Your task to perform on an android device: set the stopwatch Image 0: 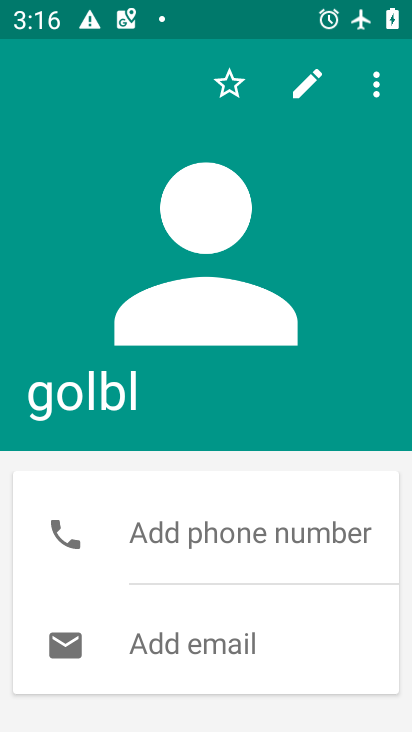
Step 0: press home button
Your task to perform on an android device: set the stopwatch Image 1: 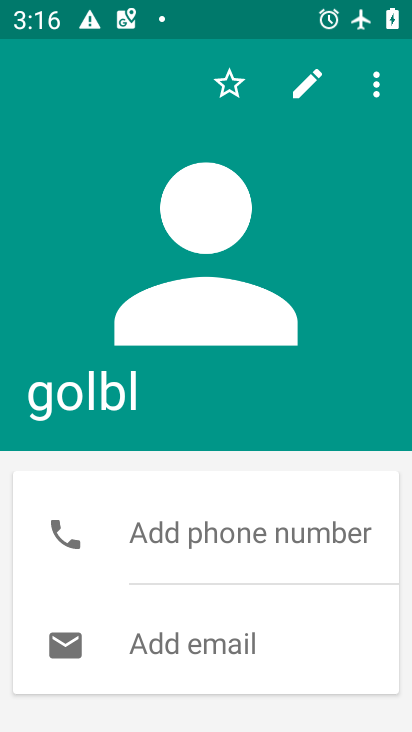
Step 1: press home button
Your task to perform on an android device: set the stopwatch Image 2: 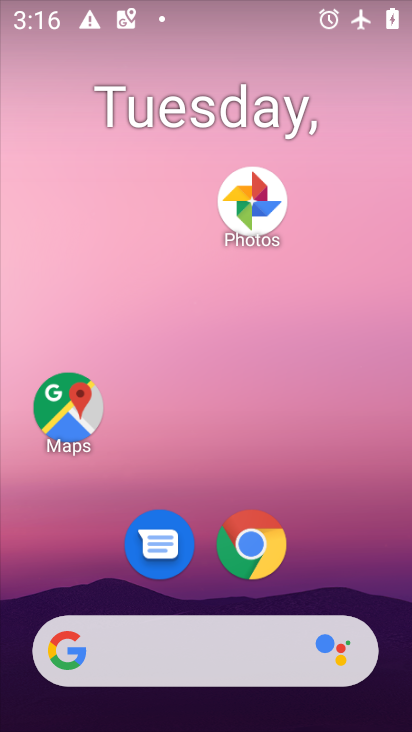
Step 2: drag from (347, 506) to (290, 19)
Your task to perform on an android device: set the stopwatch Image 3: 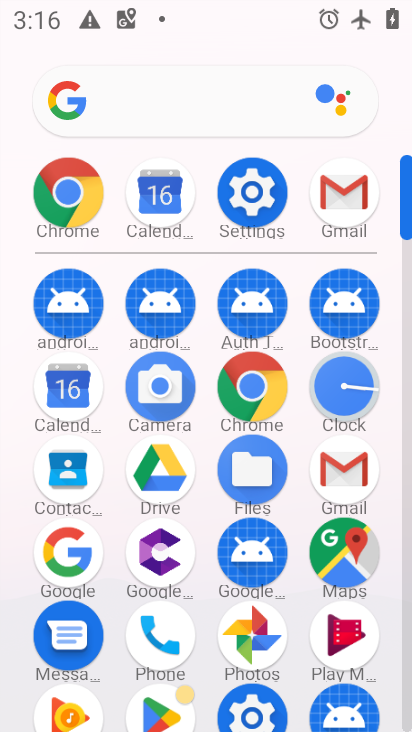
Step 3: click (340, 375)
Your task to perform on an android device: set the stopwatch Image 4: 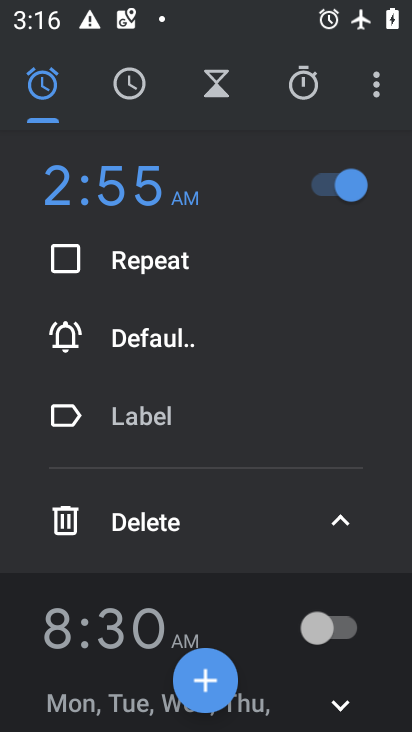
Step 4: click (293, 74)
Your task to perform on an android device: set the stopwatch Image 5: 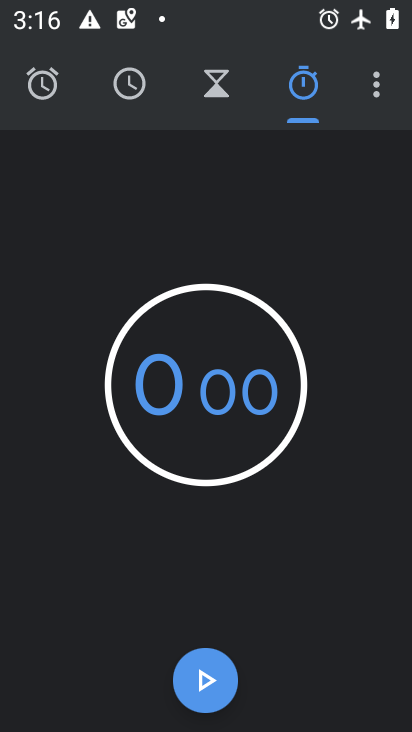
Step 5: click (198, 673)
Your task to perform on an android device: set the stopwatch Image 6: 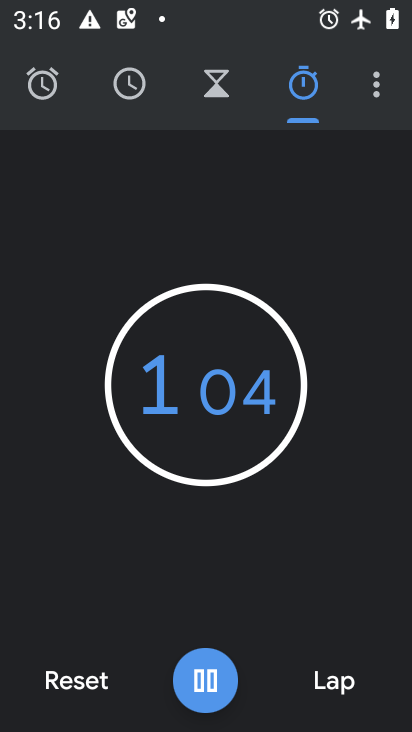
Step 6: click (198, 672)
Your task to perform on an android device: set the stopwatch Image 7: 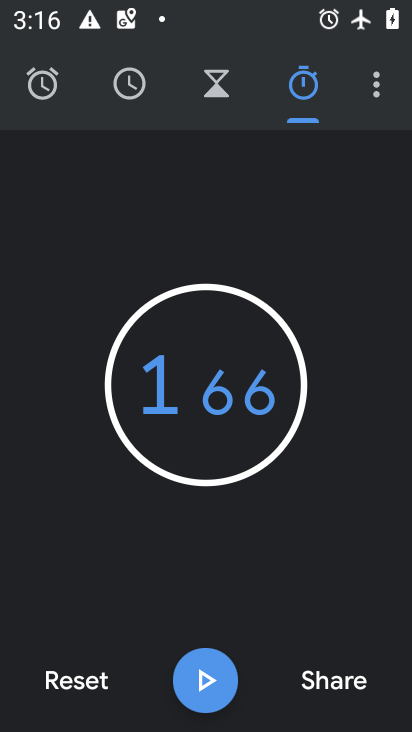
Step 7: task complete